Your task to perform on an android device: turn on data saver in the chrome app Image 0: 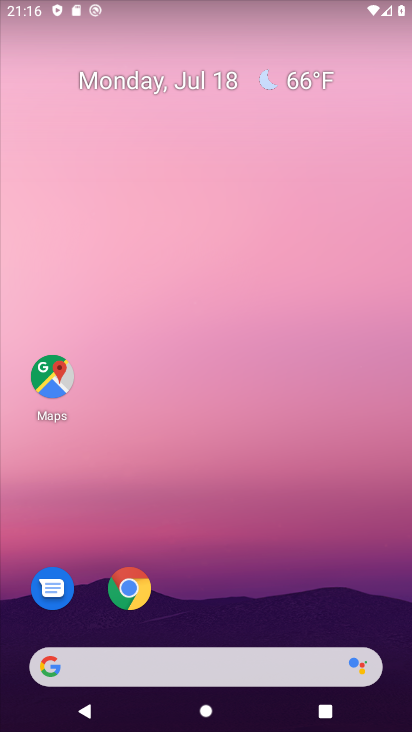
Step 0: click (125, 591)
Your task to perform on an android device: turn on data saver in the chrome app Image 1: 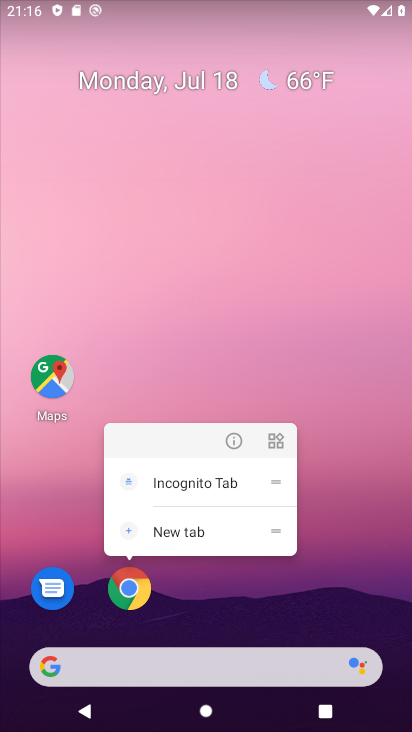
Step 1: click (131, 588)
Your task to perform on an android device: turn on data saver in the chrome app Image 2: 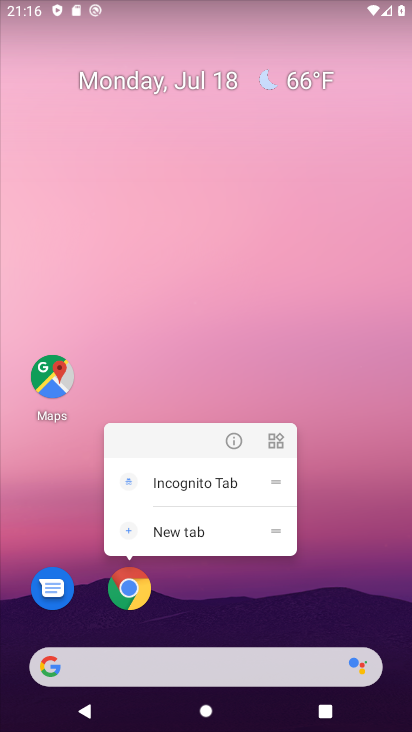
Step 2: click (131, 587)
Your task to perform on an android device: turn on data saver in the chrome app Image 3: 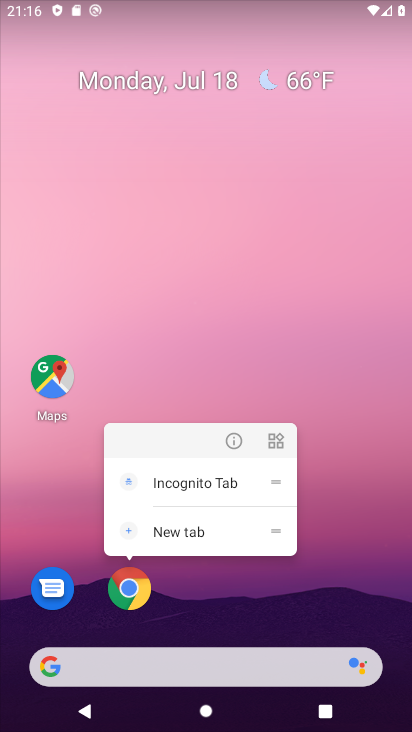
Step 3: click (131, 586)
Your task to perform on an android device: turn on data saver in the chrome app Image 4: 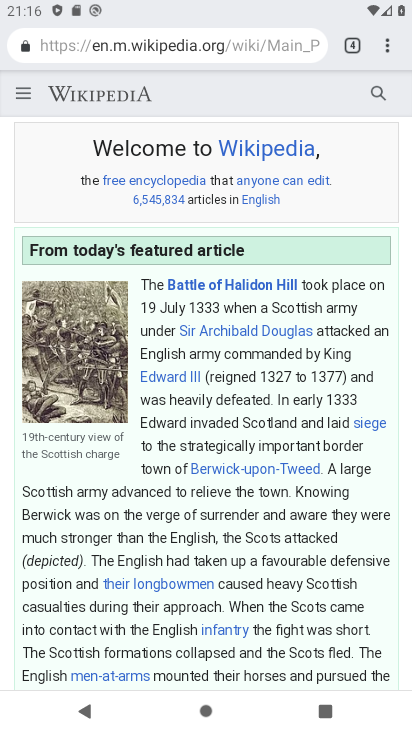
Step 4: drag from (383, 42) to (256, 544)
Your task to perform on an android device: turn on data saver in the chrome app Image 5: 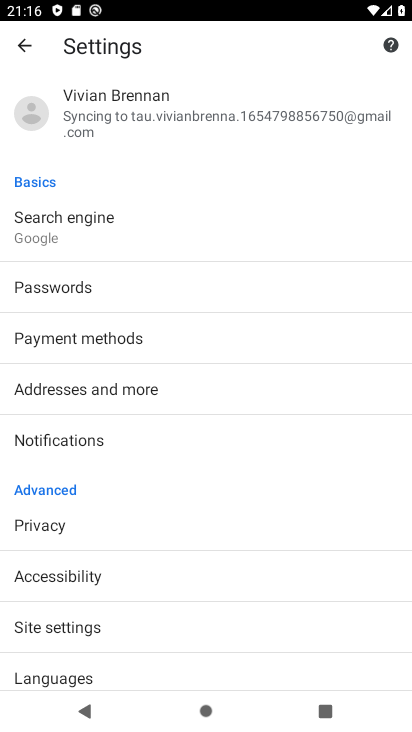
Step 5: drag from (127, 619) to (133, 328)
Your task to perform on an android device: turn on data saver in the chrome app Image 6: 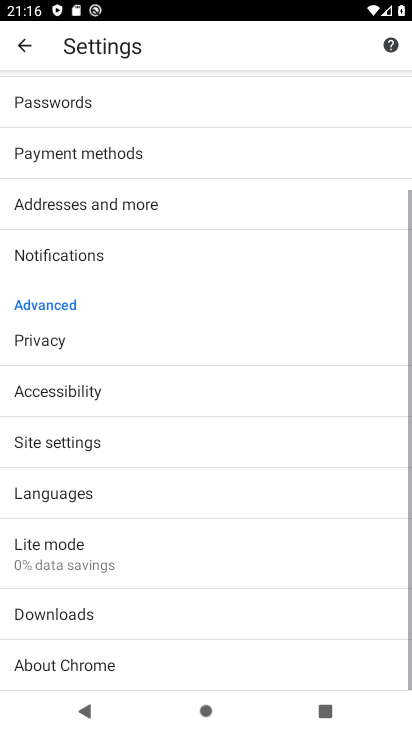
Step 6: click (57, 536)
Your task to perform on an android device: turn on data saver in the chrome app Image 7: 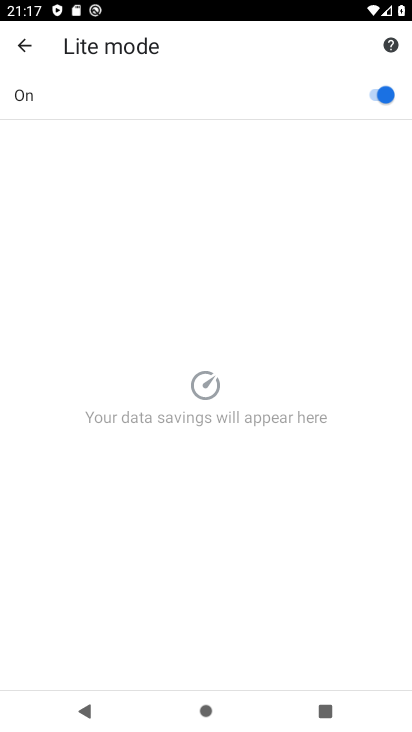
Step 7: task complete